Your task to perform on an android device: turn on javascript in the chrome app Image 0: 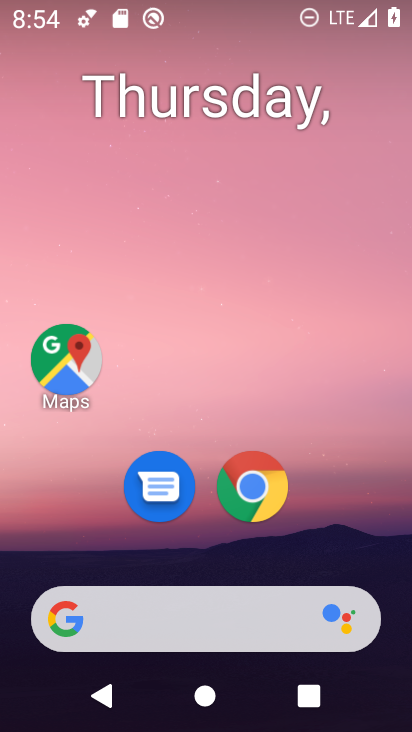
Step 0: click (264, 480)
Your task to perform on an android device: turn on javascript in the chrome app Image 1: 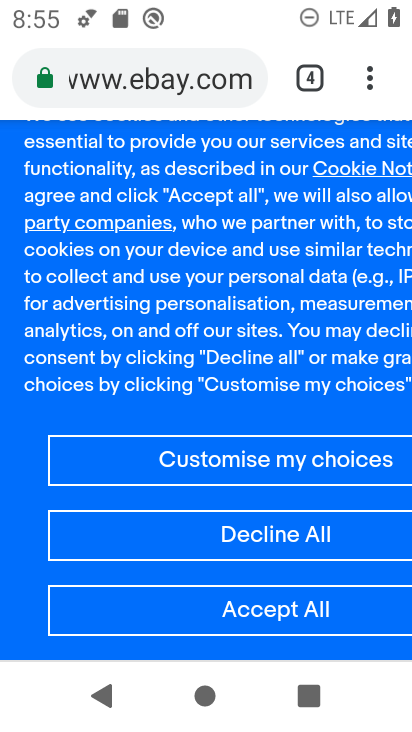
Step 1: drag from (380, 82) to (131, 546)
Your task to perform on an android device: turn on javascript in the chrome app Image 2: 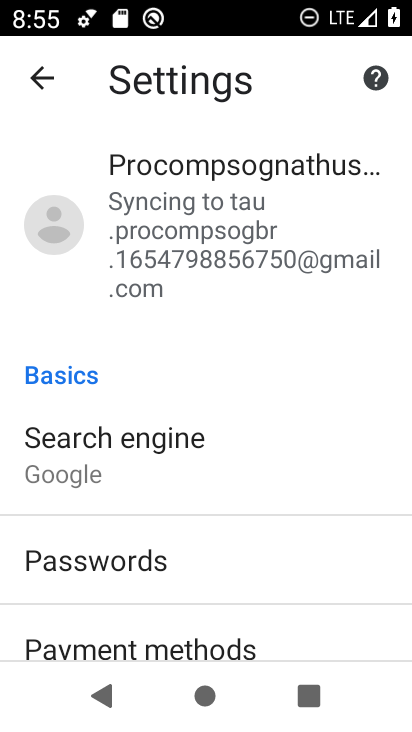
Step 2: drag from (132, 625) to (190, 97)
Your task to perform on an android device: turn on javascript in the chrome app Image 3: 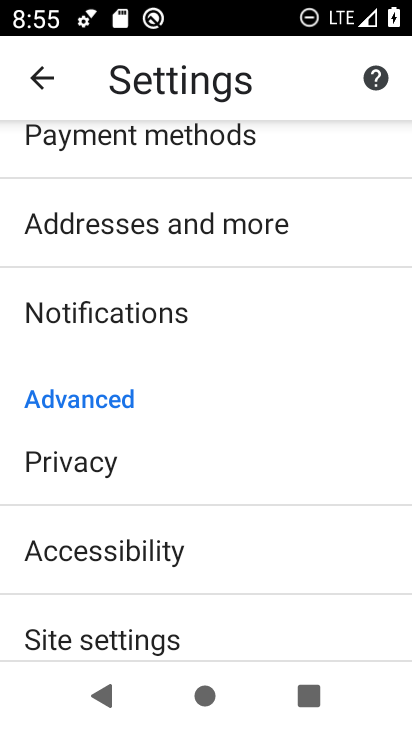
Step 3: click (147, 636)
Your task to perform on an android device: turn on javascript in the chrome app Image 4: 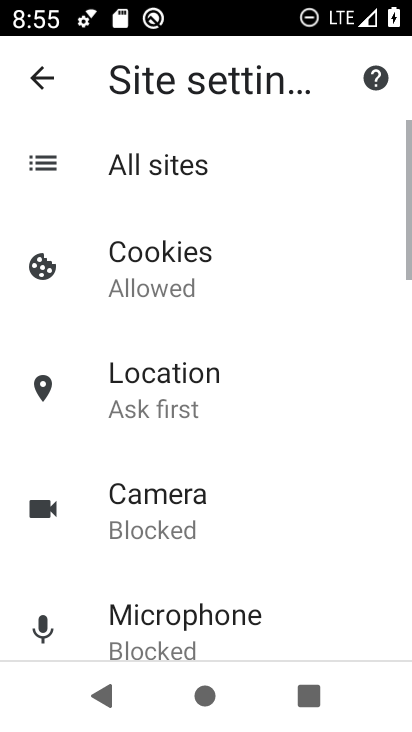
Step 4: drag from (189, 615) to (274, 0)
Your task to perform on an android device: turn on javascript in the chrome app Image 5: 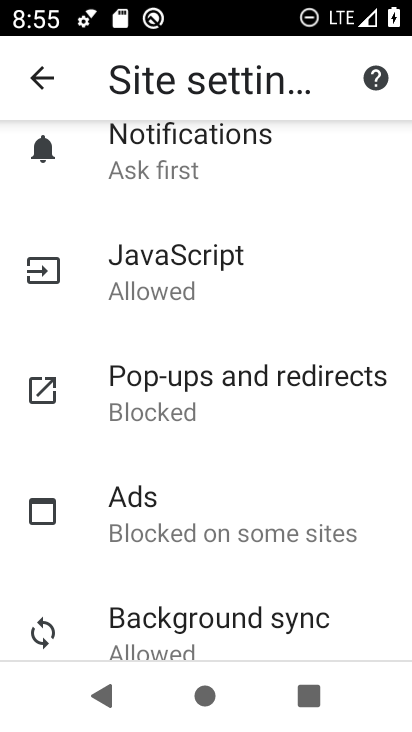
Step 5: drag from (178, 624) to (254, 100)
Your task to perform on an android device: turn on javascript in the chrome app Image 6: 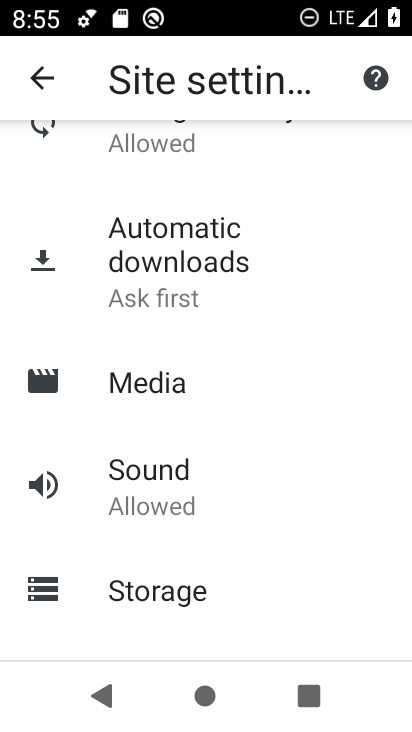
Step 6: drag from (191, 617) to (266, 63)
Your task to perform on an android device: turn on javascript in the chrome app Image 7: 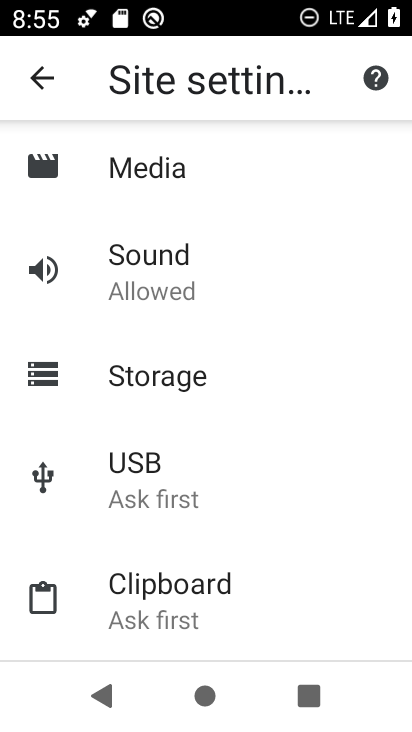
Step 7: drag from (197, 605) to (289, 61)
Your task to perform on an android device: turn on javascript in the chrome app Image 8: 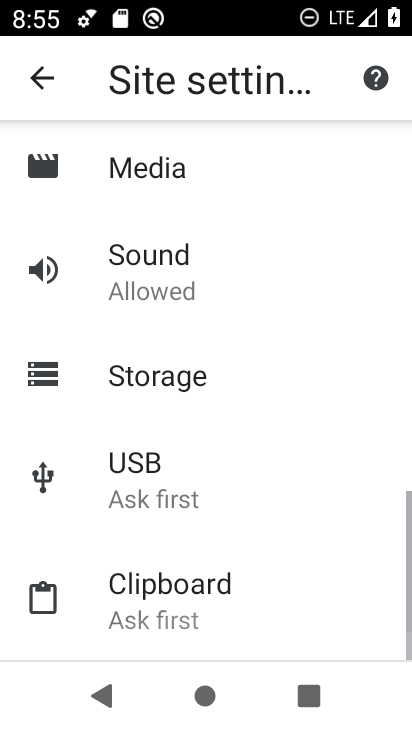
Step 8: drag from (269, 210) to (178, 728)
Your task to perform on an android device: turn on javascript in the chrome app Image 9: 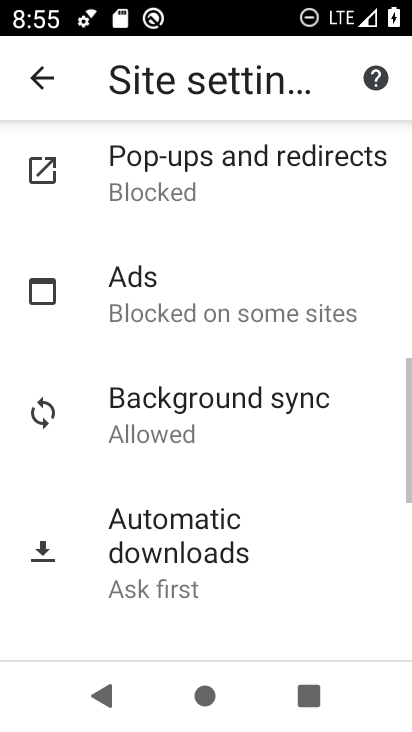
Step 9: drag from (219, 237) to (153, 688)
Your task to perform on an android device: turn on javascript in the chrome app Image 10: 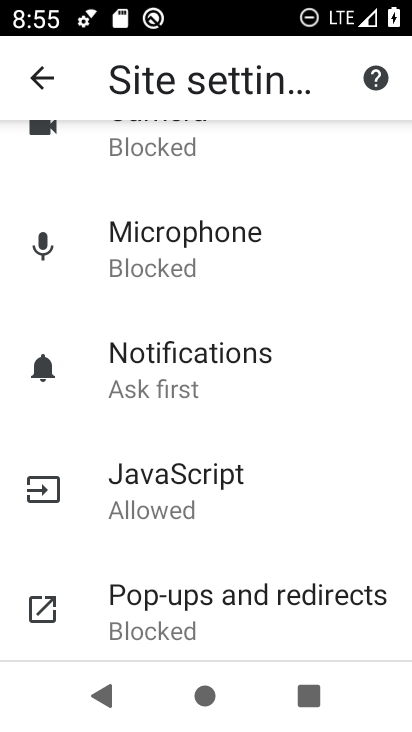
Step 10: click (157, 513)
Your task to perform on an android device: turn on javascript in the chrome app Image 11: 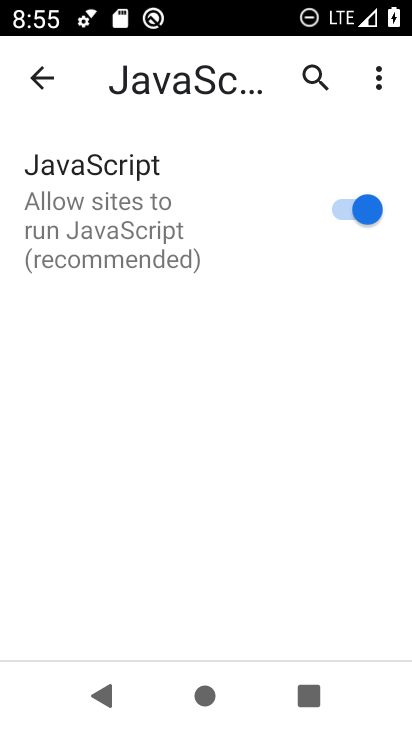
Step 11: task complete